Your task to perform on an android device: Go to sound settings Image 0: 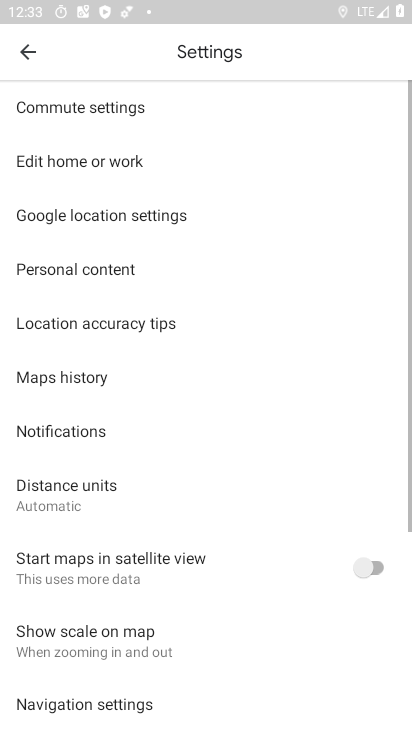
Step 0: drag from (256, 612) to (205, 201)
Your task to perform on an android device: Go to sound settings Image 1: 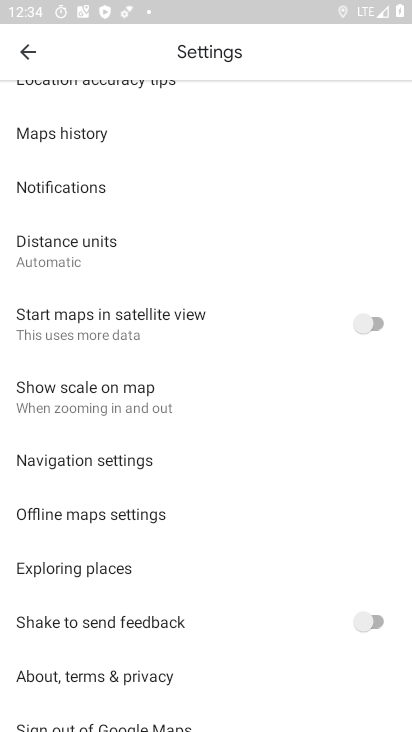
Step 1: press home button
Your task to perform on an android device: Go to sound settings Image 2: 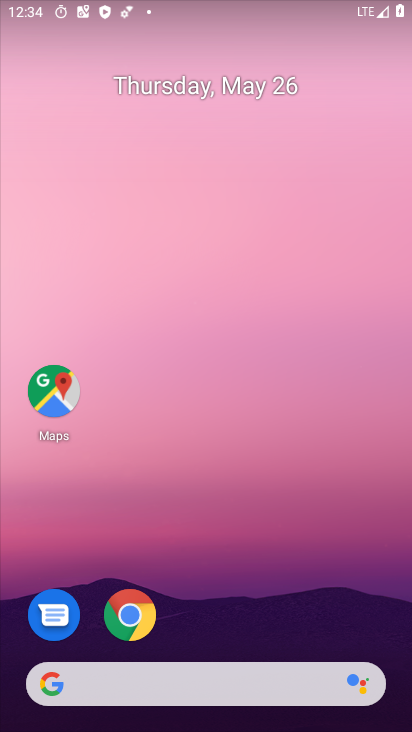
Step 2: drag from (241, 618) to (195, 140)
Your task to perform on an android device: Go to sound settings Image 3: 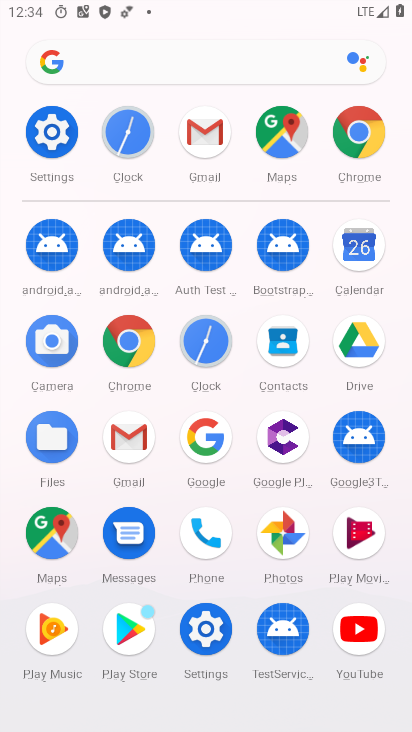
Step 3: click (52, 137)
Your task to perform on an android device: Go to sound settings Image 4: 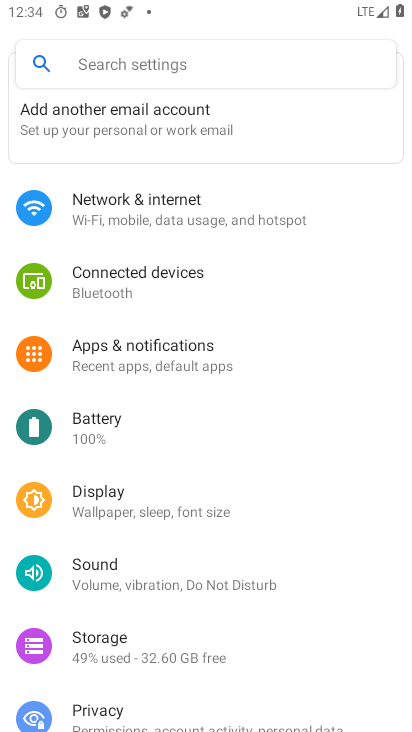
Step 4: click (178, 594)
Your task to perform on an android device: Go to sound settings Image 5: 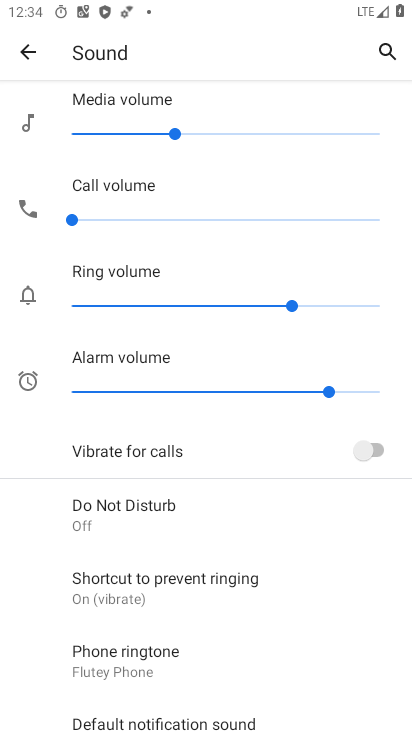
Step 5: task complete